Your task to perform on an android device: see creations saved in the google photos Image 0: 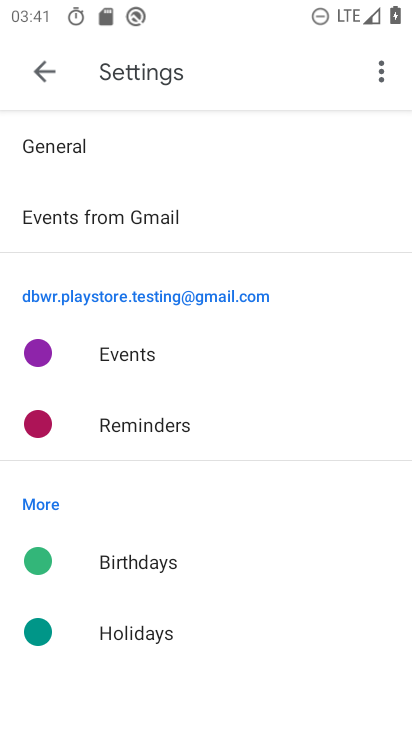
Step 0: press home button
Your task to perform on an android device: see creations saved in the google photos Image 1: 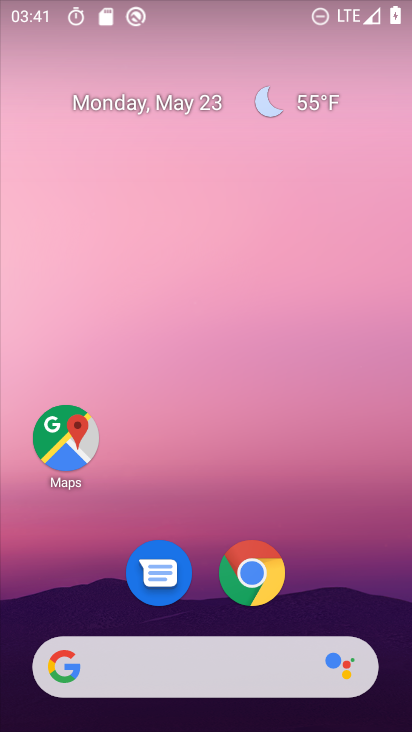
Step 1: drag from (322, 598) to (295, 37)
Your task to perform on an android device: see creations saved in the google photos Image 2: 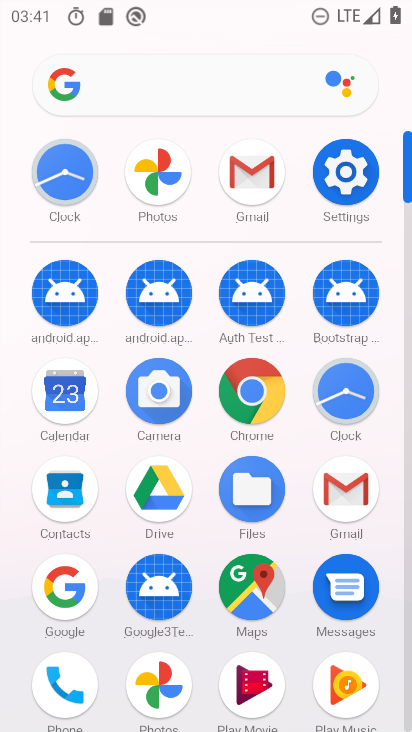
Step 2: click (145, 681)
Your task to perform on an android device: see creations saved in the google photos Image 3: 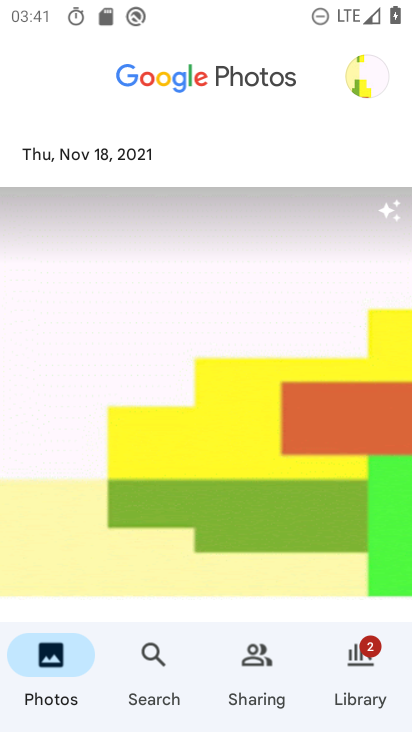
Step 3: click (159, 660)
Your task to perform on an android device: see creations saved in the google photos Image 4: 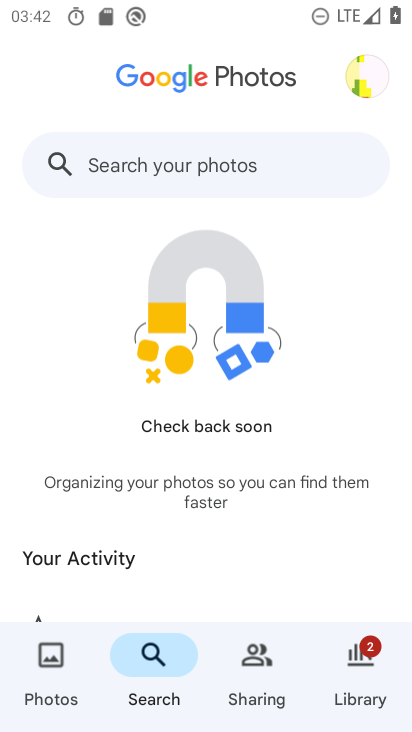
Step 4: drag from (234, 575) to (269, 153)
Your task to perform on an android device: see creations saved in the google photos Image 5: 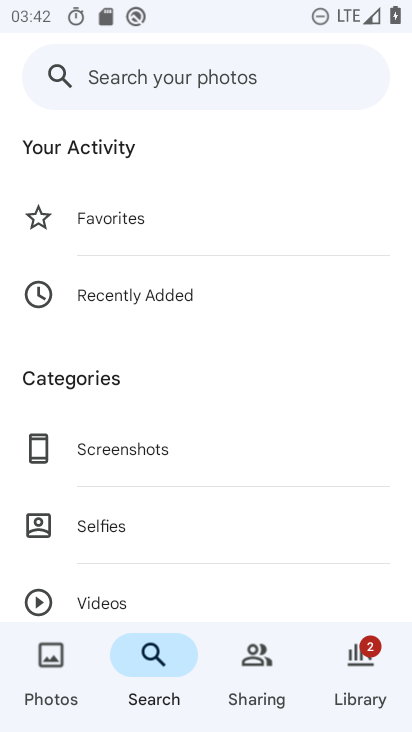
Step 5: drag from (250, 558) to (263, 118)
Your task to perform on an android device: see creations saved in the google photos Image 6: 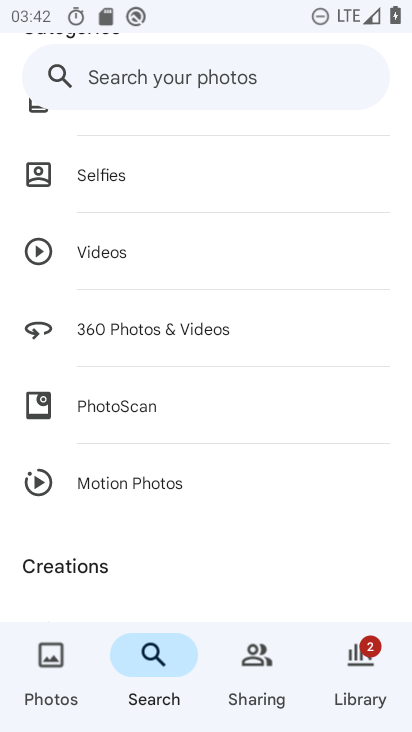
Step 6: drag from (218, 564) to (240, 247)
Your task to perform on an android device: see creations saved in the google photos Image 7: 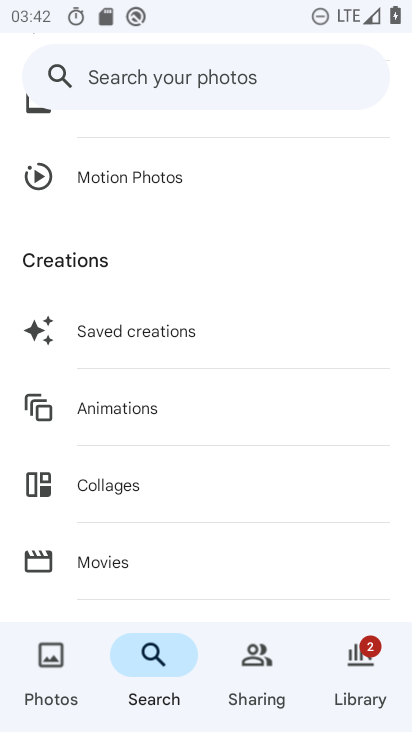
Step 7: click (173, 327)
Your task to perform on an android device: see creations saved in the google photos Image 8: 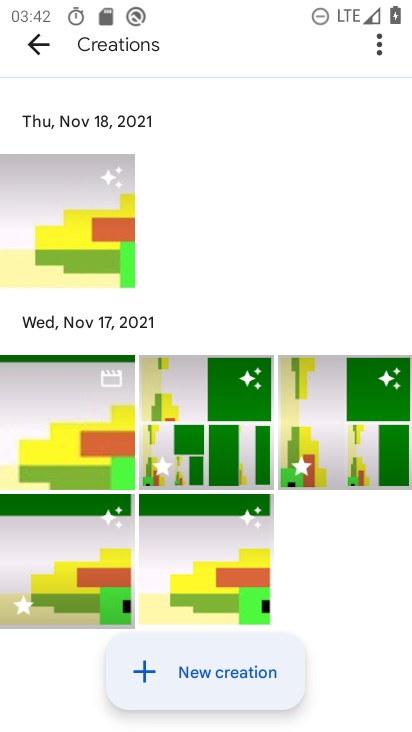
Step 8: task complete